Your task to perform on an android device: move an email to a new category in the gmail app Image 0: 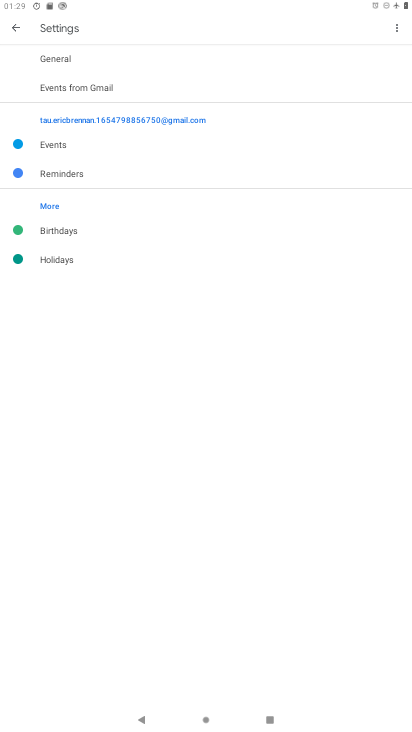
Step 0: press home button
Your task to perform on an android device: move an email to a new category in the gmail app Image 1: 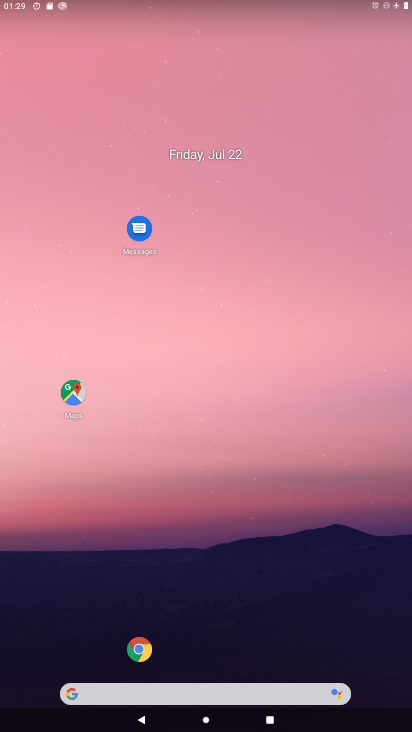
Step 1: drag from (34, 688) to (280, 64)
Your task to perform on an android device: move an email to a new category in the gmail app Image 2: 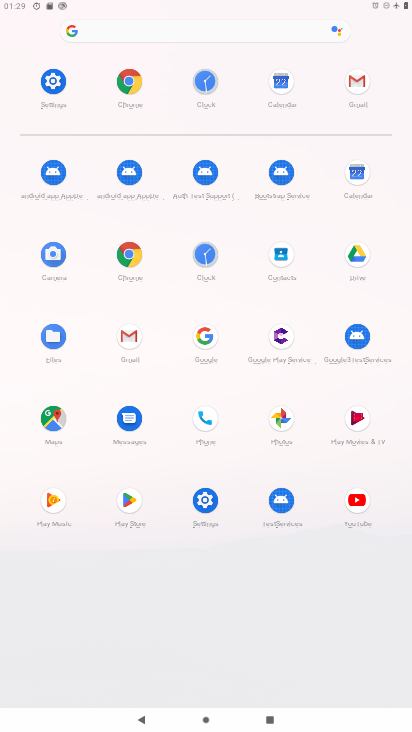
Step 2: click (354, 85)
Your task to perform on an android device: move an email to a new category in the gmail app Image 3: 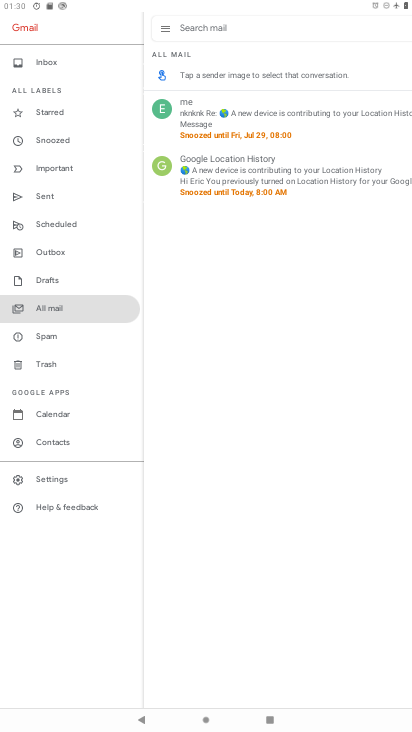
Step 3: click (52, 59)
Your task to perform on an android device: move an email to a new category in the gmail app Image 4: 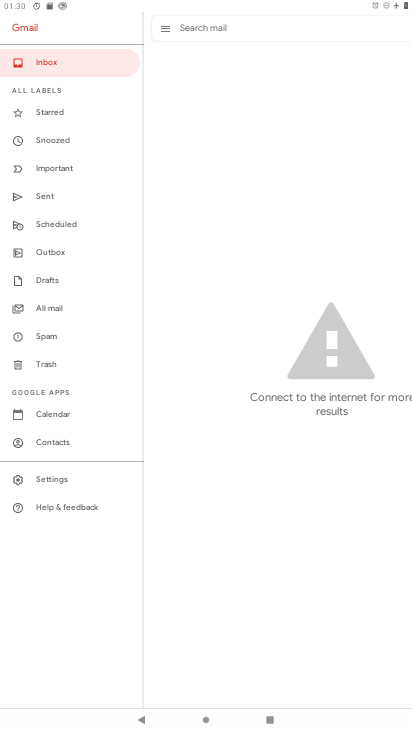
Step 4: task complete